Your task to perform on an android device: allow notifications from all sites in the chrome app Image 0: 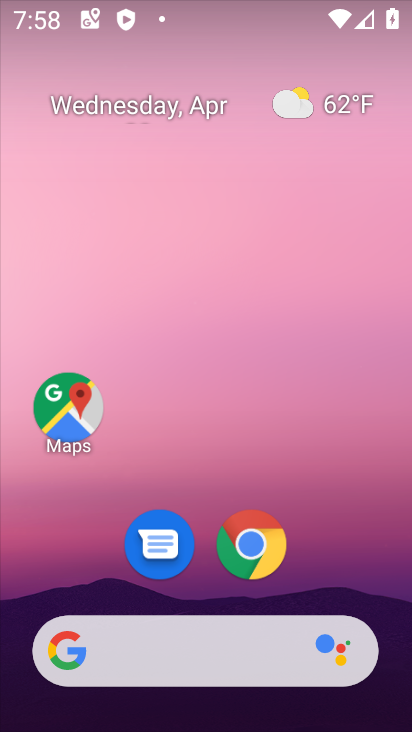
Step 0: click (264, 538)
Your task to perform on an android device: allow notifications from all sites in the chrome app Image 1: 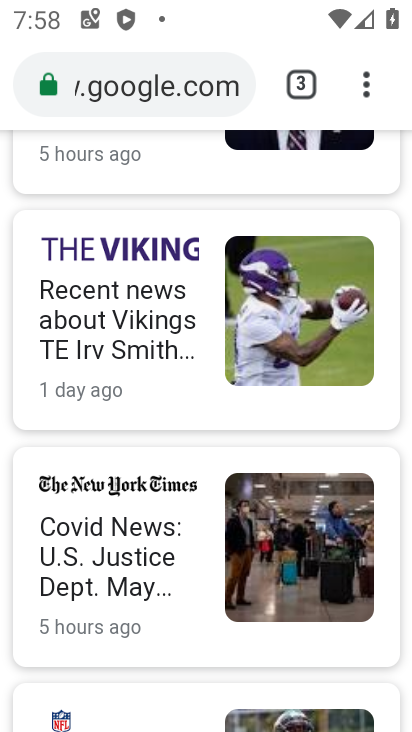
Step 1: drag from (361, 81) to (162, 593)
Your task to perform on an android device: allow notifications from all sites in the chrome app Image 2: 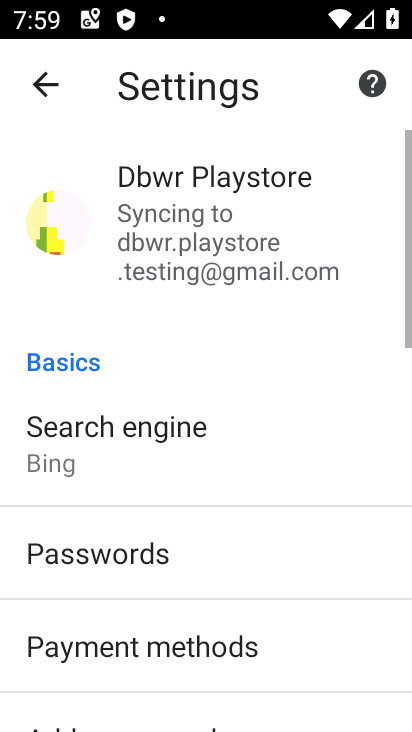
Step 2: drag from (159, 655) to (170, 311)
Your task to perform on an android device: allow notifications from all sites in the chrome app Image 3: 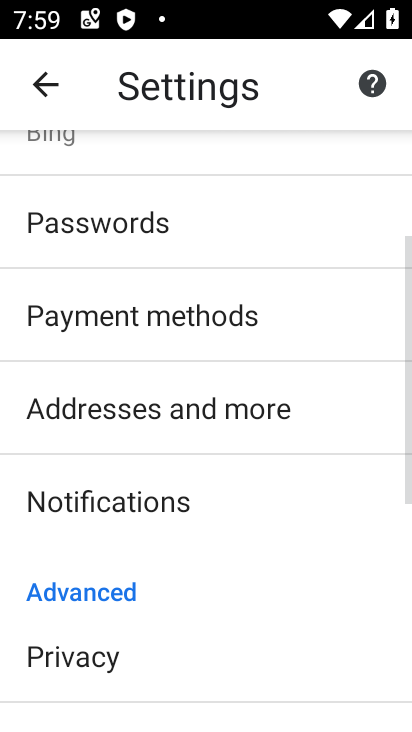
Step 3: click (118, 522)
Your task to perform on an android device: allow notifications from all sites in the chrome app Image 4: 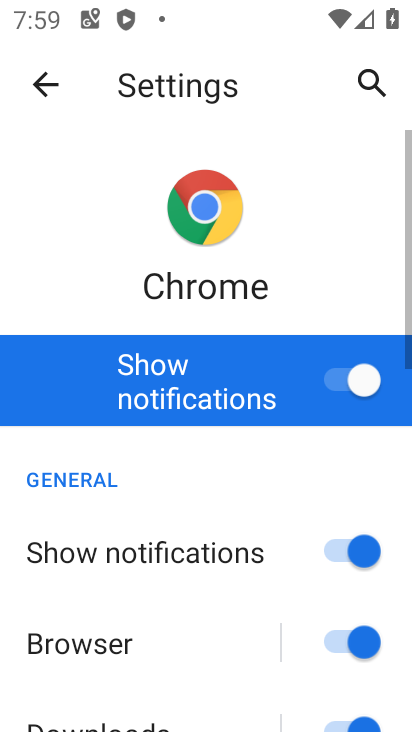
Step 4: task complete